Your task to perform on an android device: check battery use Image 0: 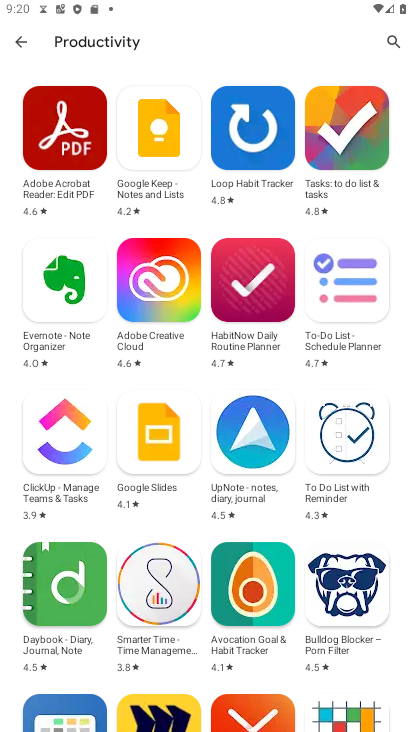
Step 0: press back button
Your task to perform on an android device: check battery use Image 1: 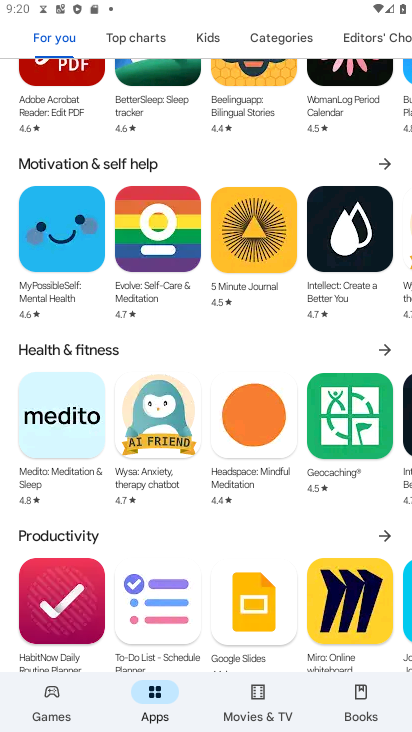
Step 1: press back button
Your task to perform on an android device: check battery use Image 2: 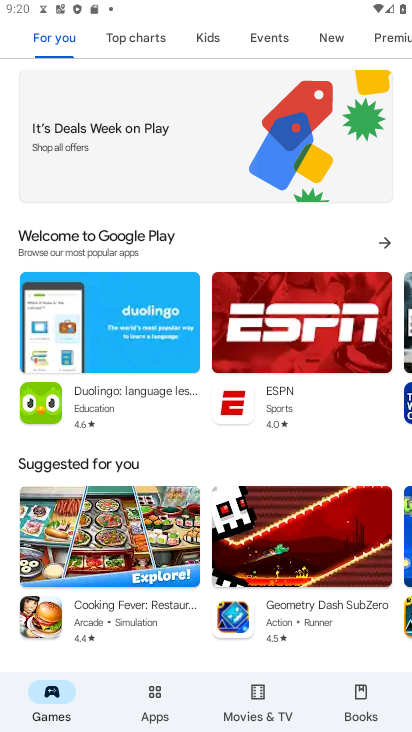
Step 2: press back button
Your task to perform on an android device: check battery use Image 3: 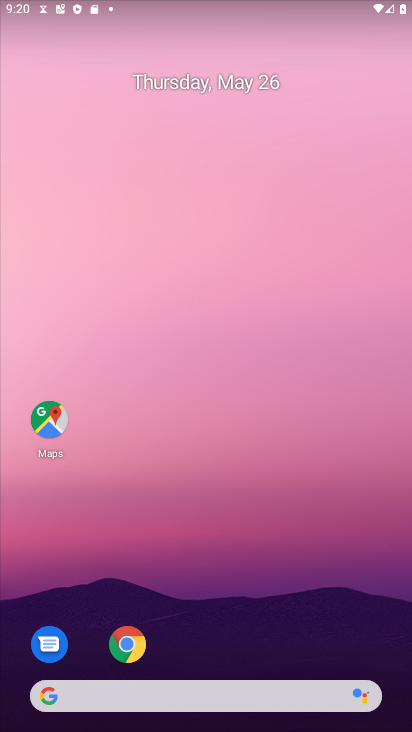
Step 3: drag from (236, 612) to (267, 103)
Your task to perform on an android device: check battery use Image 4: 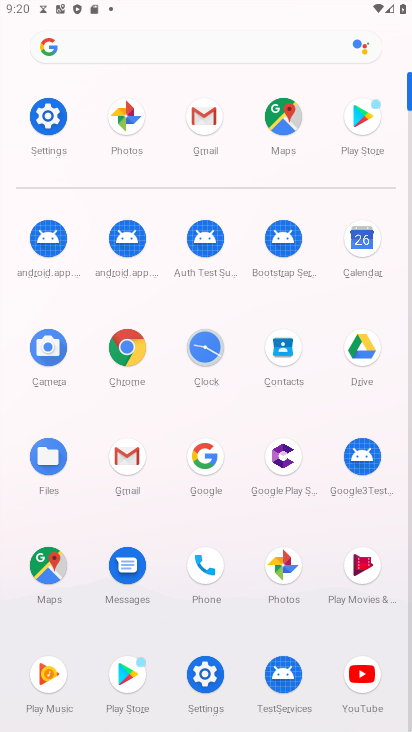
Step 4: click (46, 113)
Your task to perform on an android device: check battery use Image 5: 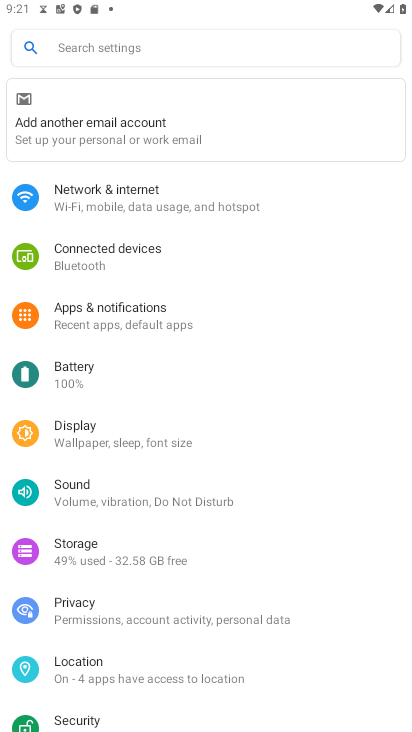
Step 5: click (96, 372)
Your task to perform on an android device: check battery use Image 6: 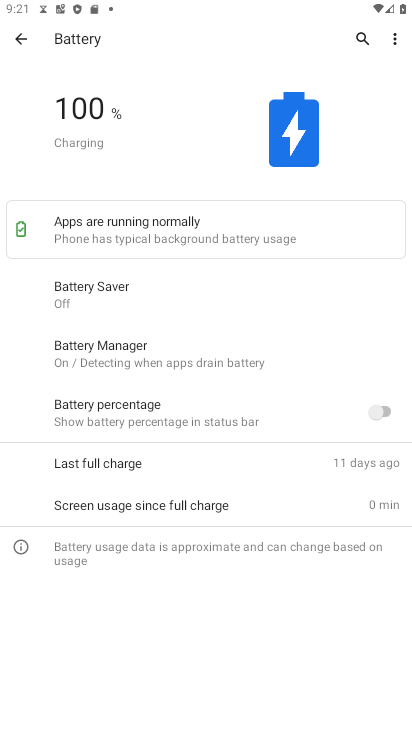
Step 6: click (399, 35)
Your task to perform on an android device: check battery use Image 7: 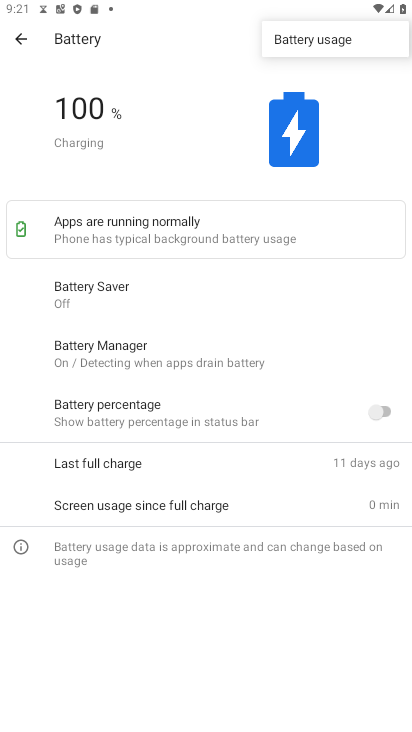
Step 7: click (294, 54)
Your task to perform on an android device: check battery use Image 8: 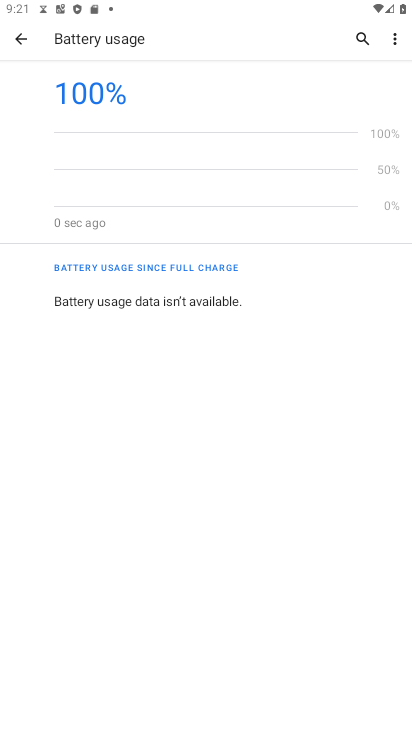
Step 8: task complete